Your task to perform on an android device: turn on sleep mode Image 0: 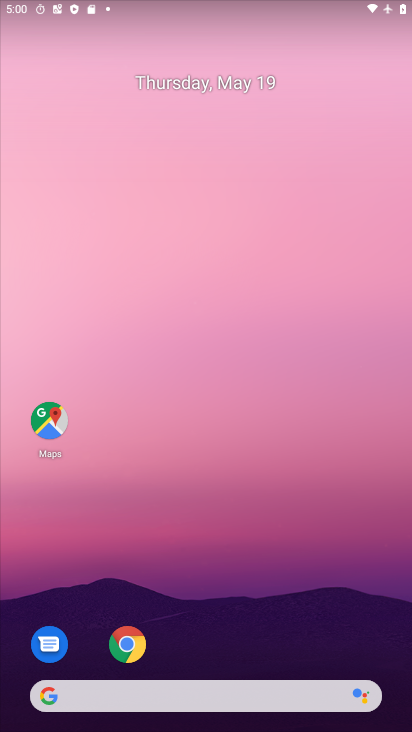
Step 0: drag from (185, 669) to (221, 288)
Your task to perform on an android device: turn on sleep mode Image 1: 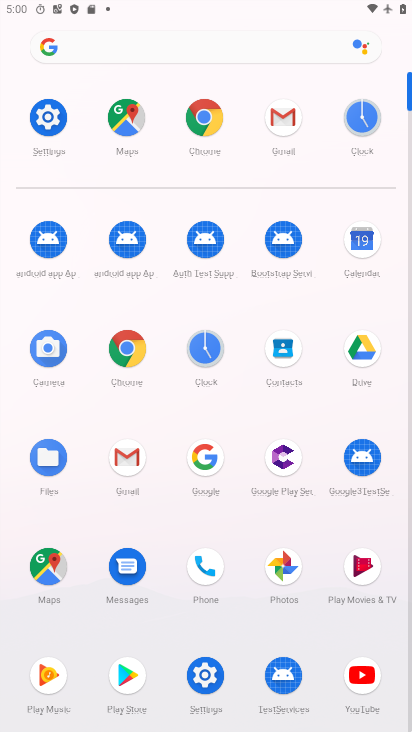
Step 1: click (209, 685)
Your task to perform on an android device: turn on sleep mode Image 2: 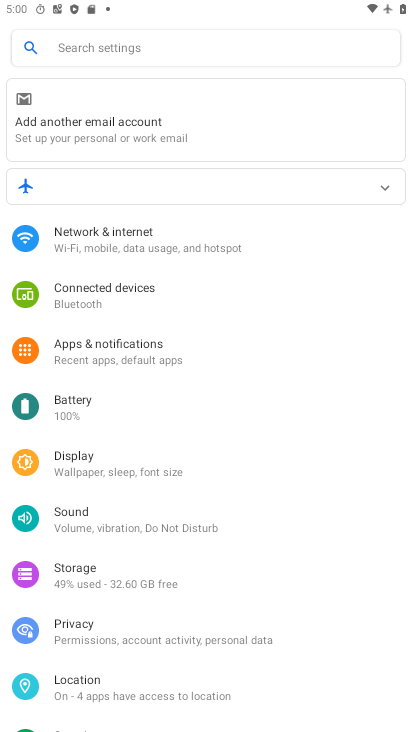
Step 2: click (117, 472)
Your task to perform on an android device: turn on sleep mode Image 3: 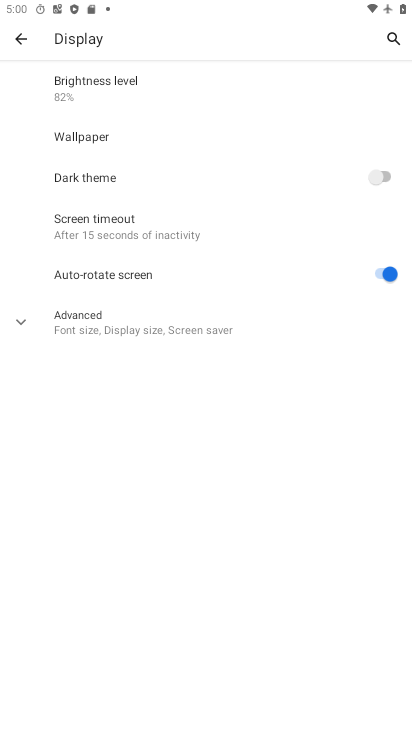
Step 3: click (70, 312)
Your task to perform on an android device: turn on sleep mode Image 4: 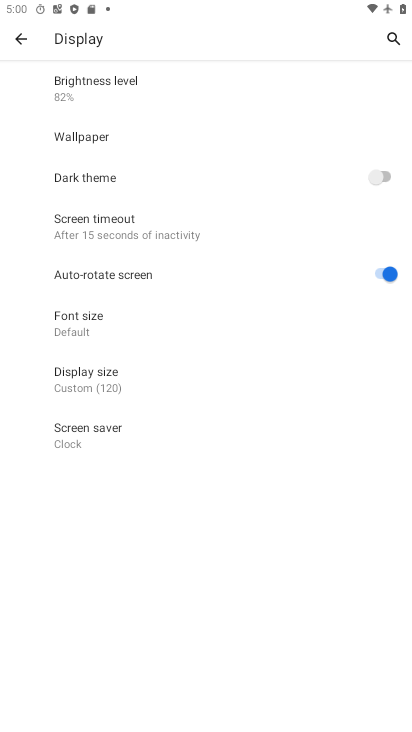
Step 4: click (95, 233)
Your task to perform on an android device: turn on sleep mode Image 5: 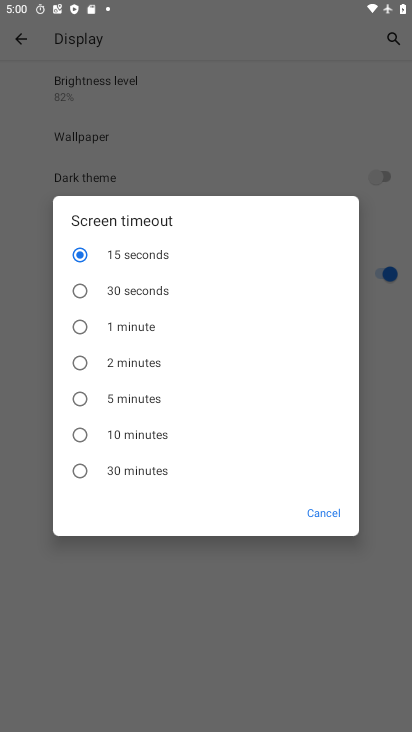
Step 5: click (142, 291)
Your task to perform on an android device: turn on sleep mode Image 6: 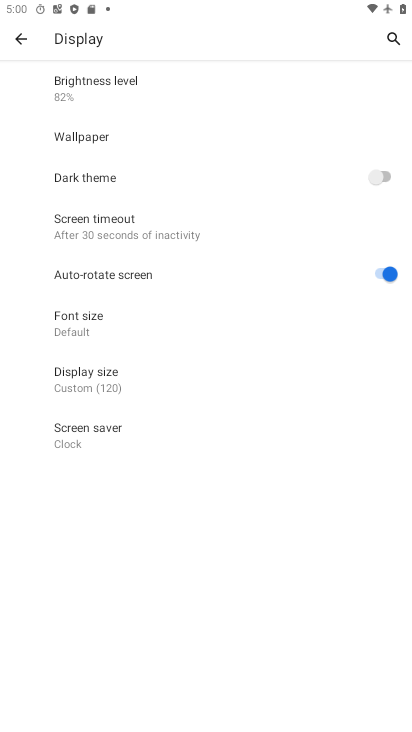
Step 6: task complete